Your task to perform on an android device: open chrome and create a bookmark for the current page Image 0: 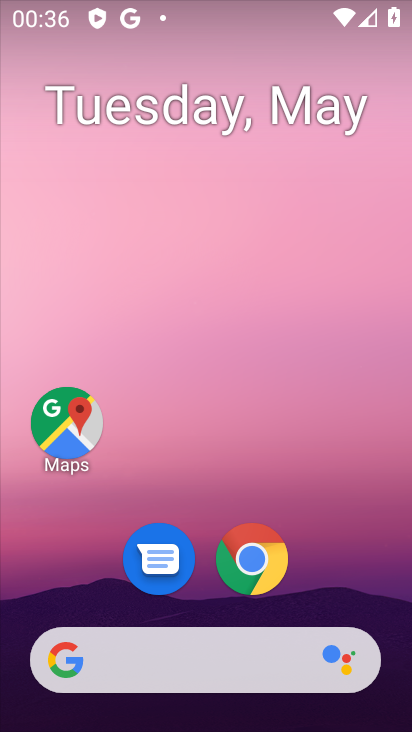
Step 0: click (243, 573)
Your task to perform on an android device: open chrome and create a bookmark for the current page Image 1: 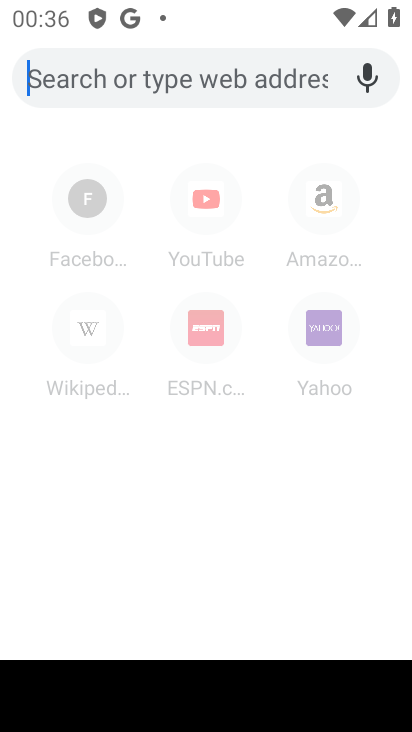
Step 1: task complete